Your task to perform on an android device: Go to Yahoo.com Image 0: 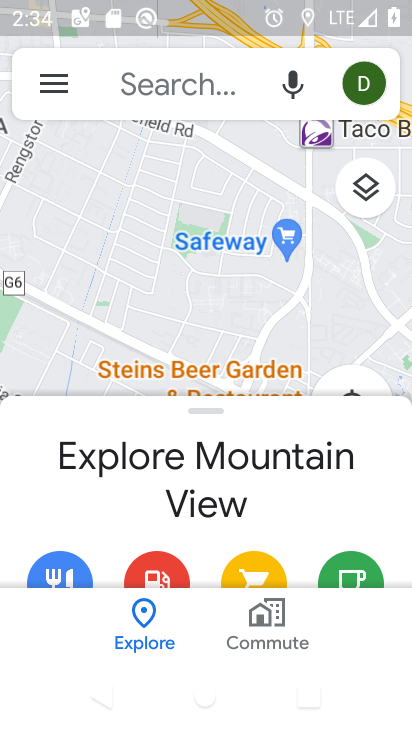
Step 0: press back button
Your task to perform on an android device: Go to Yahoo.com Image 1: 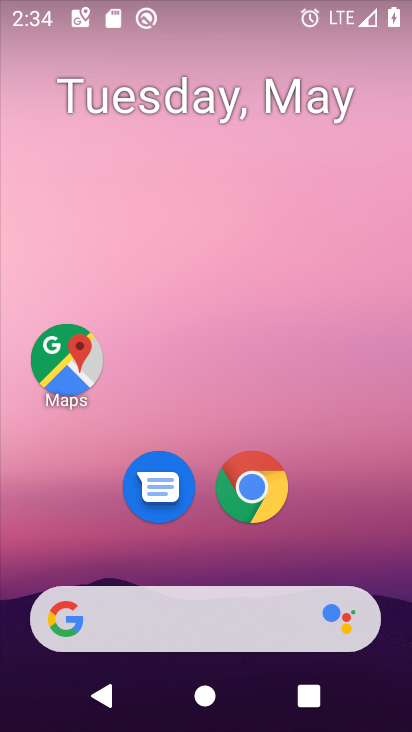
Step 1: click (240, 481)
Your task to perform on an android device: Go to Yahoo.com Image 2: 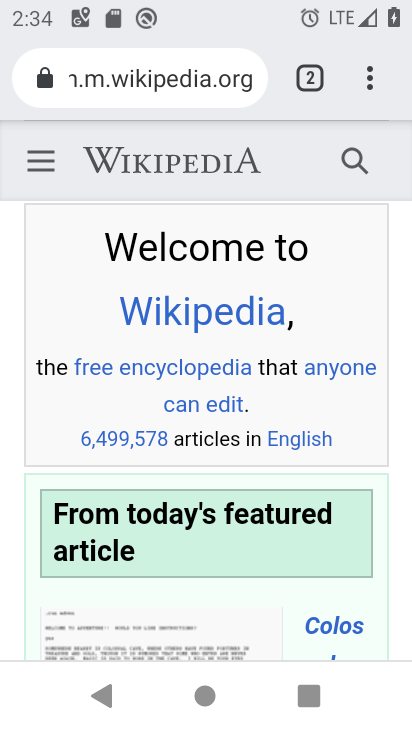
Step 2: click (315, 78)
Your task to perform on an android device: Go to Yahoo.com Image 3: 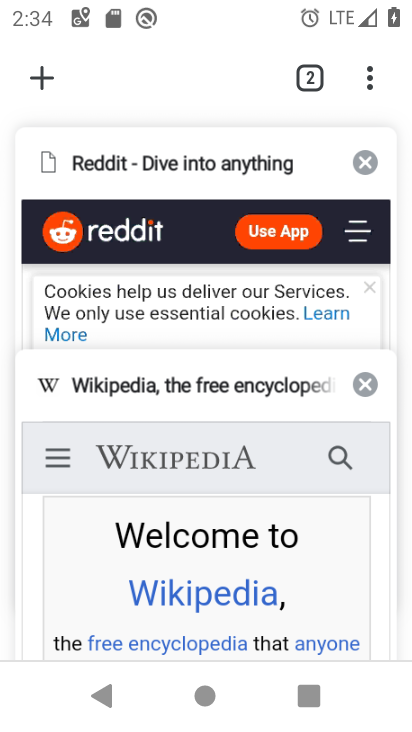
Step 3: click (364, 167)
Your task to perform on an android device: Go to Yahoo.com Image 4: 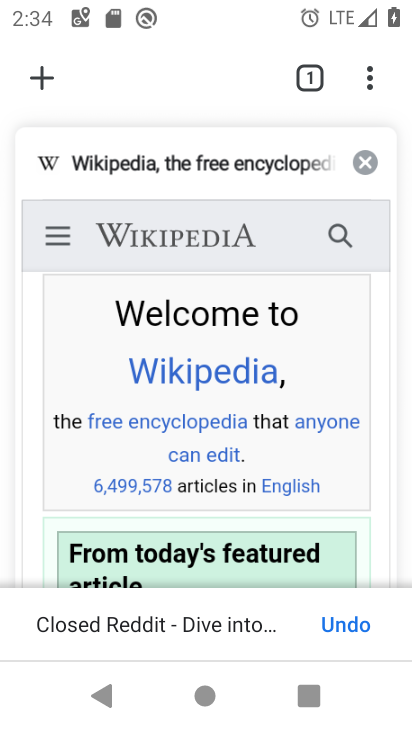
Step 4: click (366, 174)
Your task to perform on an android device: Go to Yahoo.com Image 5: 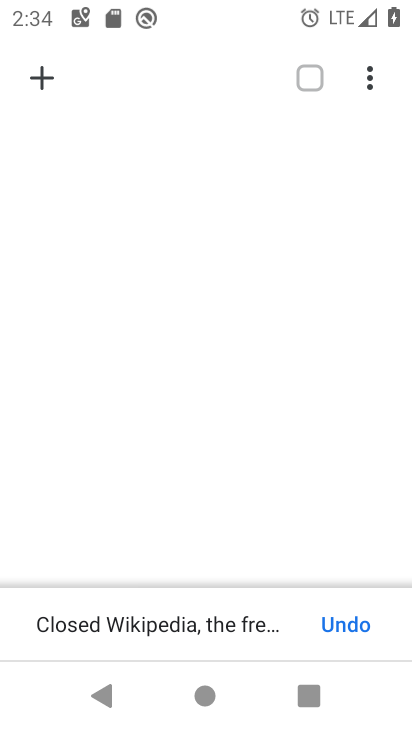
Step 5: click (46, 78)
Your task to perform on an android device: Go to Yahoo.com Image 6: 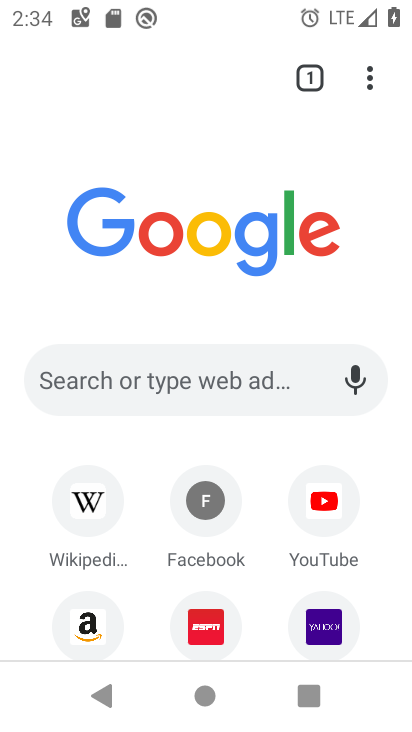
Step 6: click (320, 615)
Your task to perform on an android device: Go to Yahoo.com Image 7: 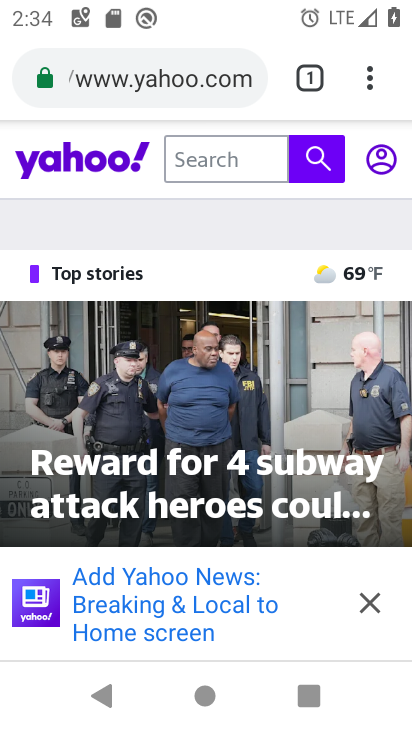
Step 7: task complete